Your task to perform on an android device: Add macbook pro 13 inch to the cart on bestbuy, then select checkout. Image 0: 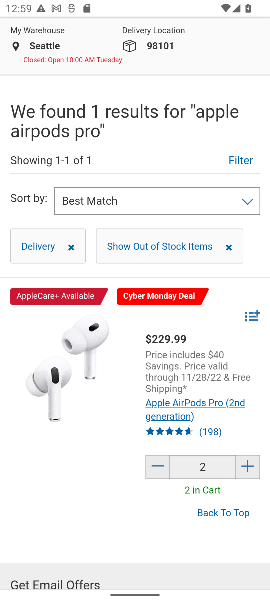
Step 0: press home button
Your task to perform on an android device: Add macbook pro 13 inch to the cart on bestbuy, then select checkout. Image 1: 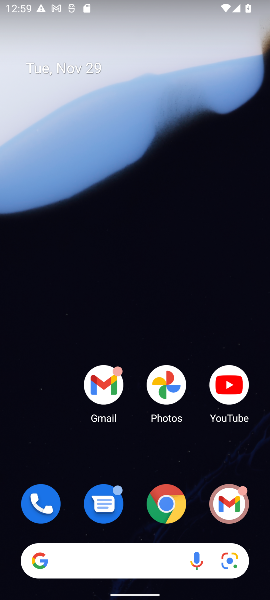
Step 1: click (164, 508)
Your task to perform on an android device: Add macbook pro 13 inch to the cart on bestbuy, then select checkout. Image 2: 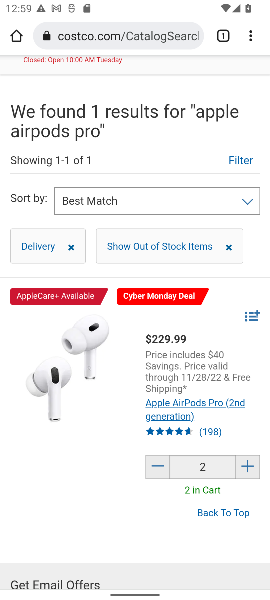
Step 2: click (99, 33)
Your task to perform on an android device: Add macbook pro 13 inch to the cart on bestbuy, then select checkout. Image 3: 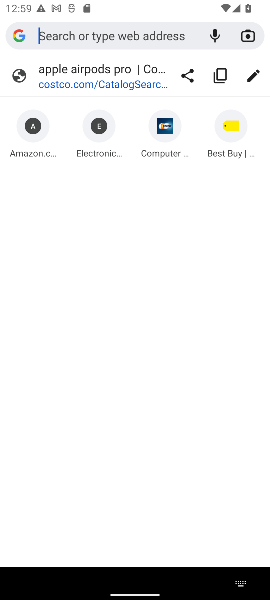
Step 3: click (233, 134)
Your task to perform on an android device: Add macbook pro 13 inch to the cart on bestbuy, then select checkout. Image 4: 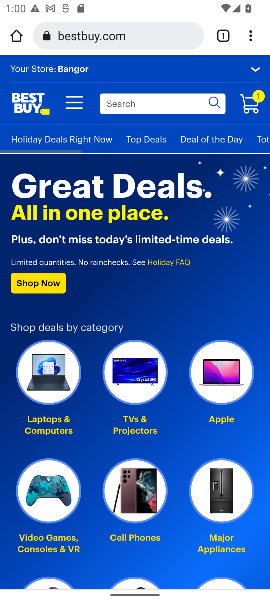
Step 4: click (111, 104)
Your task to perform on an android device: Add macbook pro 13 inch to the cart on bestbuy, then select checkout. Image 5: 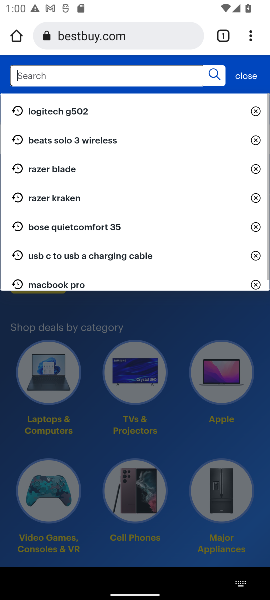
Step 5: type "macbook pro 13 inch"
Your task to perform on an android device: Add macbook pro 13 inch to the cart on bestbuy, then select checkout. Image 6: 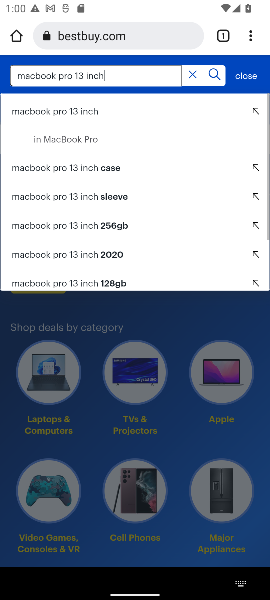
Step 6: click (54, 117)
Your task to perform on an android device: Add macbook pro 13 inch to the cart on bestbuy, then select checkout. Image 7: 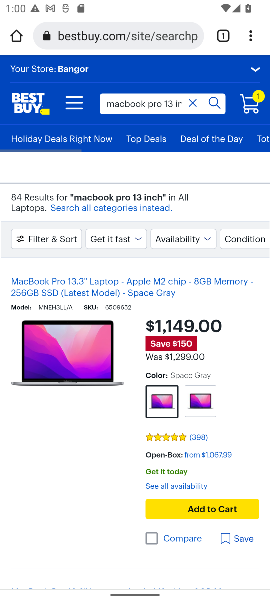
Step 7: drag from (130, 358) to (143, 276)
Your task to perform on an android device: Add macbook pro 13 inch to the cart on bestbuy, then select checkout. Image 8: 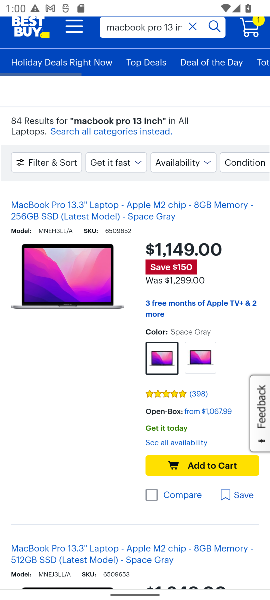
Step 8: click (183, 469)
Your task to perform on an android device: Add macbook pro 13 inch to the cart on bestbuy, then select checkout. Image 9: 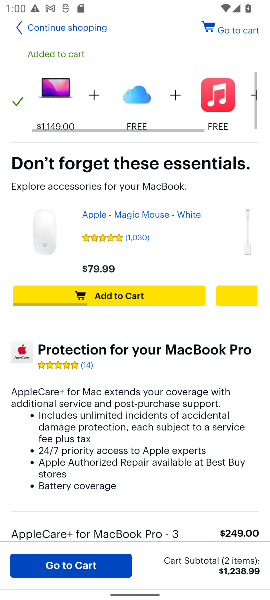
Step 9: click (232, 34)
Your task to perform on an android device: Add macbook pro 13 inch to the cart on bestbuy, then select checkout. Image 10: 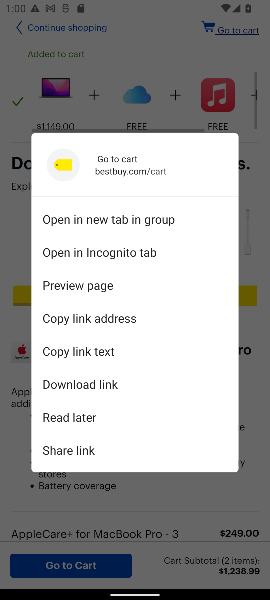
Step 10: click (232, 34)
Your task to perform on an android device: Add macbook pro 13 inch to the cart on bestbuy, then select checkout. Image 11: 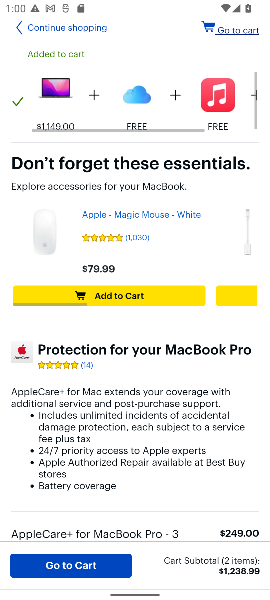
Step 11: click (232, 34)
Your task to perform on an android device: Add macbook pro 13 inch to the cart on bestbuy, then select checkout. Image 12: 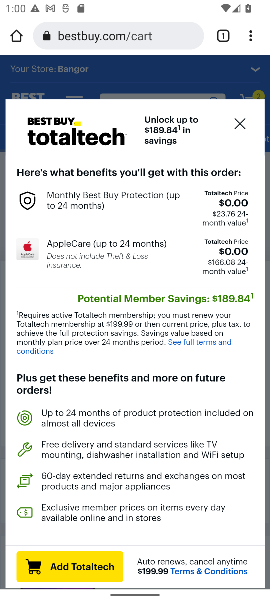
Step 12: click (237, 121)
Your task to perform on an android device: Add macbook pro 13 inch to the cart on bestbuy, then select checkout. Image 13: 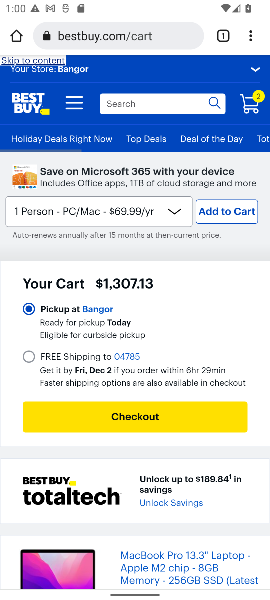
Step 13: click (135, 420)
Your task to perform on an android device: Add macbook pro 13 inch to the cart on bestbuy, then select checkout. Image 14: 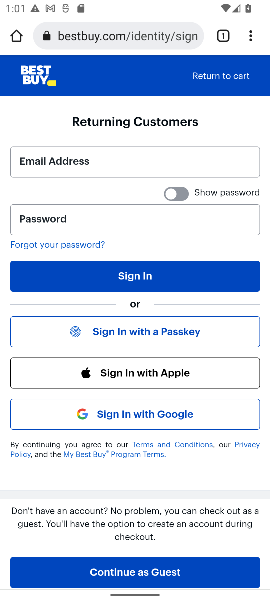
Step 14: task complete